Your task to perform on an android device: Open internet settings Image 0: 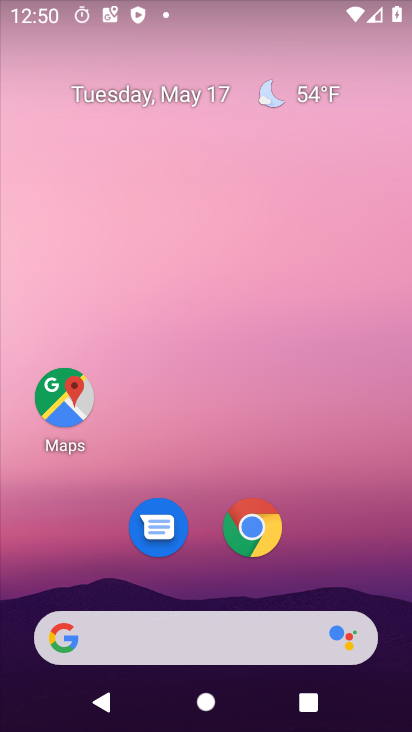
Step 0: press home button
Your task to perform on an android device: Open internet settings Image 1: 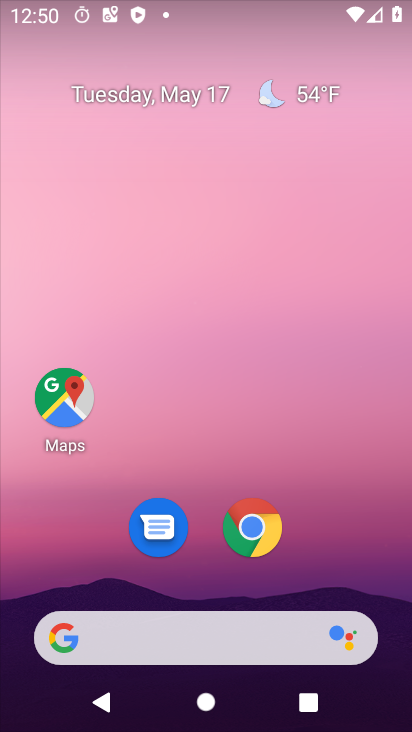
Step 1: drag from (253, 647) to (221, 178)
Your task to perform on an android device: Open internet settings Image 2: 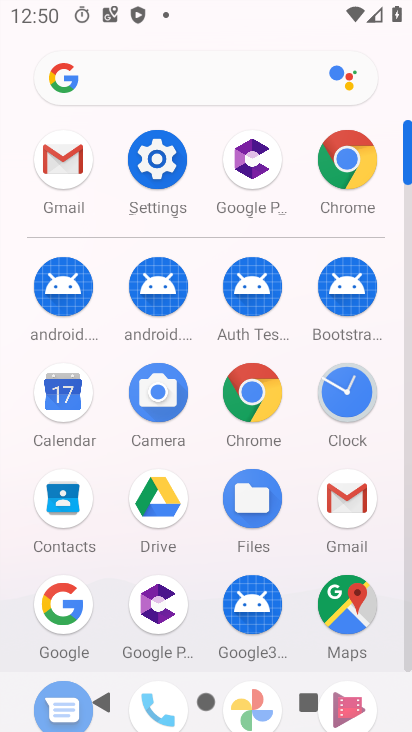
Step 2: click (149, 161)
Your task to perform on an android device: Open internet settings Image 3: 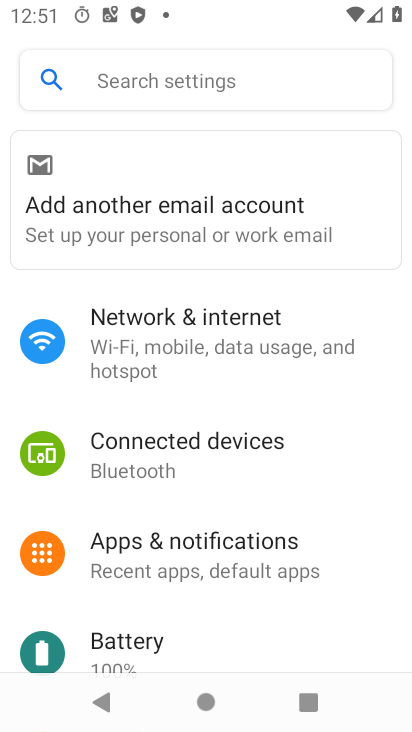
Step 3: click (178, 320)
Your task to perform on an android device: Open internet settings Image 4: 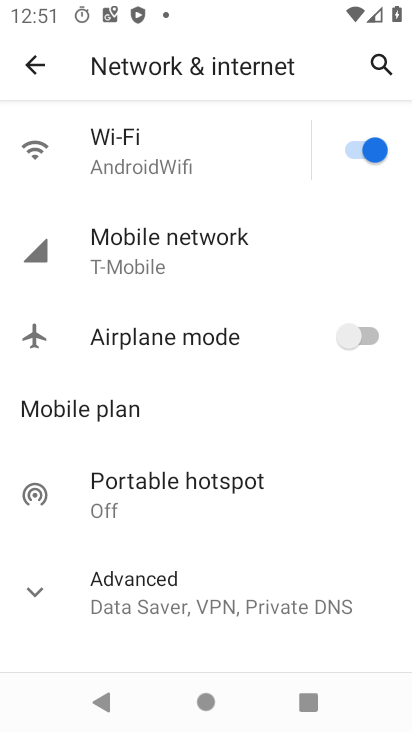
Step 4: task complete